Your task to perform on an android device: turn off improve location accuracy Image 0: 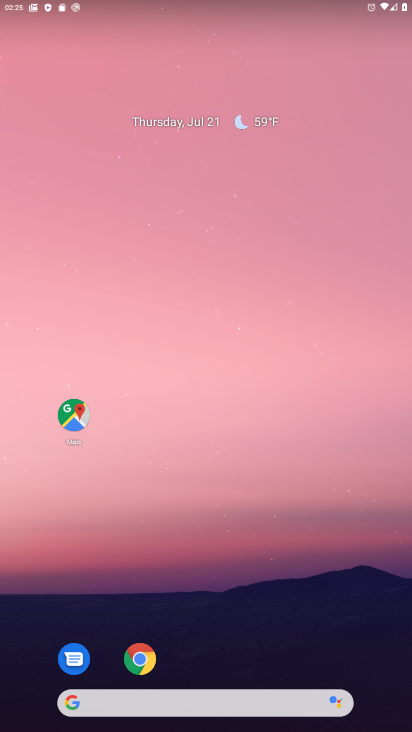
Step 0: drag from (273, 620) to (234, 126)
Your task to perform on an android device: turn off improve location accuracy Image 1: 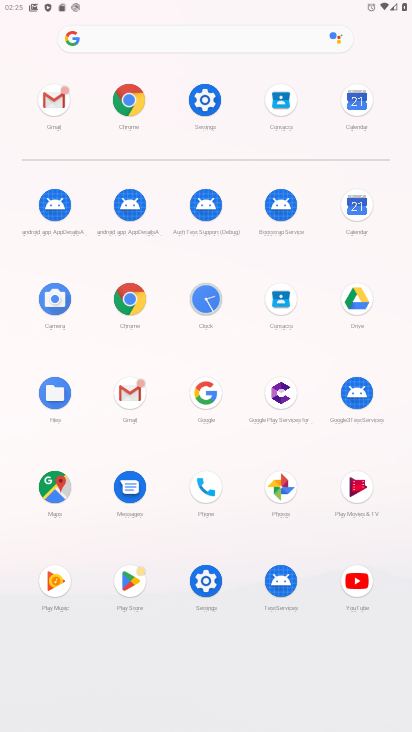
Step 1: click (208, 101)
Your task to perform on an android device: turn off improve location accuracy Image 2: 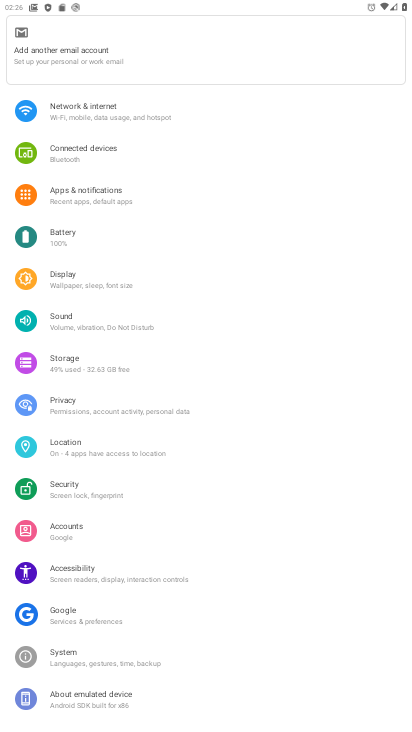
Step 2: click (96, 447)
Your task to perform on an android device: turn off improve location accuracy Image 3: 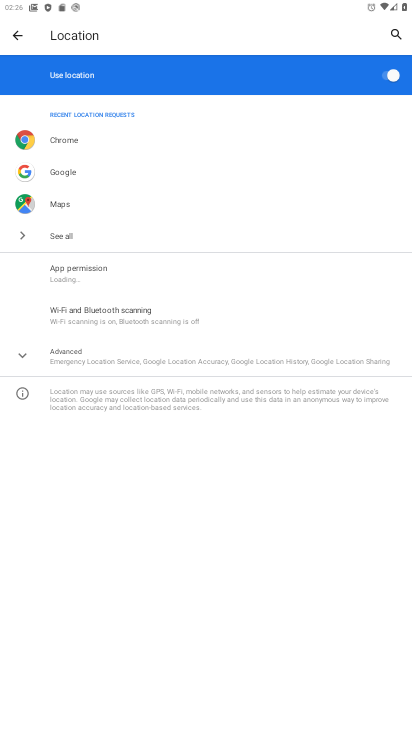
Step 3: click (134, 355)
Your task to perform on an android device: turn off improve location accuracy Image 4: 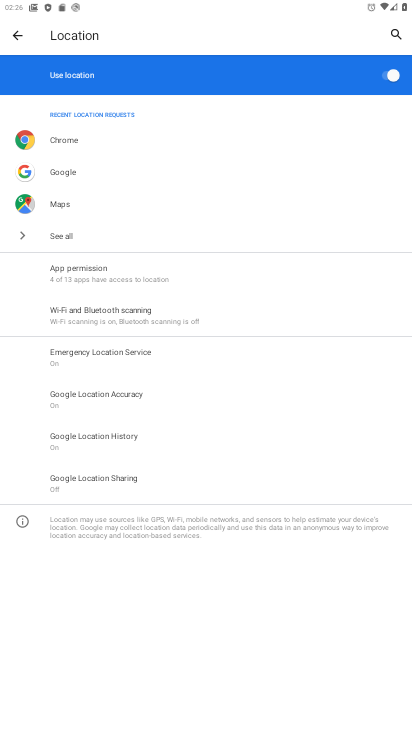
Step 4: click (126, 394)
Your task to perform on an android device: turn off improve location accuracy Image 5: 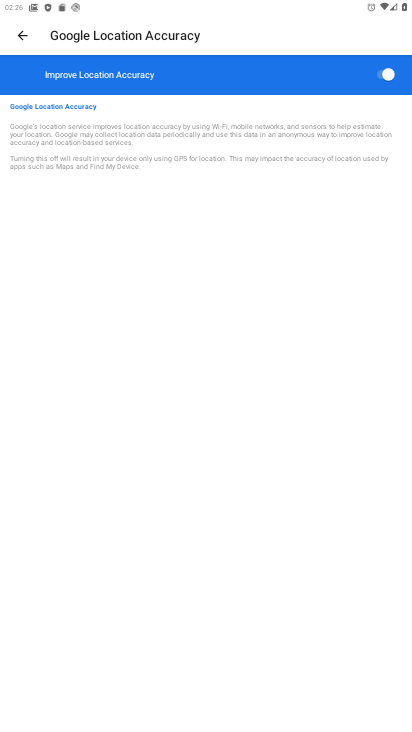
Step 5: click (380, 71)
Your task to perform on an android device: turn off improve location accuracy Image 6: 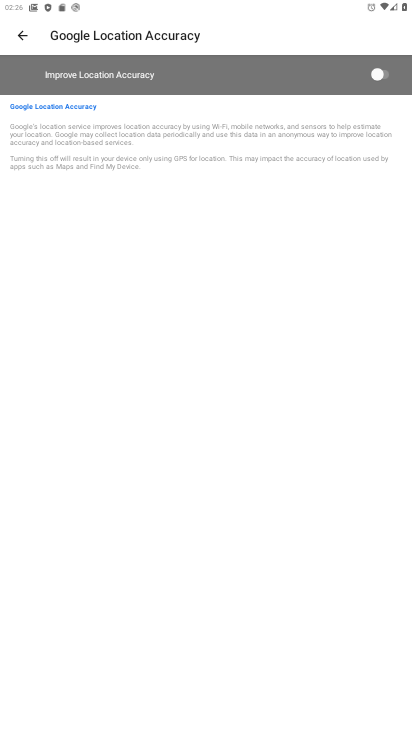
Step 6: task complete